Your task to perform on an android device: Show the shopping cart on walmart.com. Add amazon basics triple a to the cart on walmart.com Image 0: 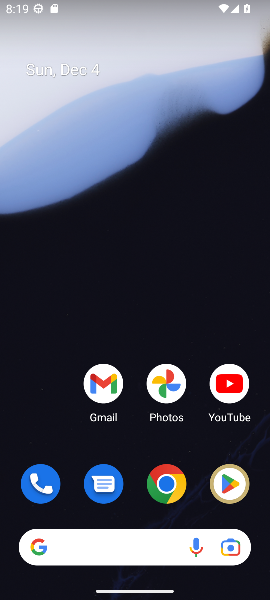
Step 0: click (170, 486)
Your task to perform on an android device: Show the shopping cart on walmart.com. Add amazon basics triple a to the cart on walmart.com Image 1: 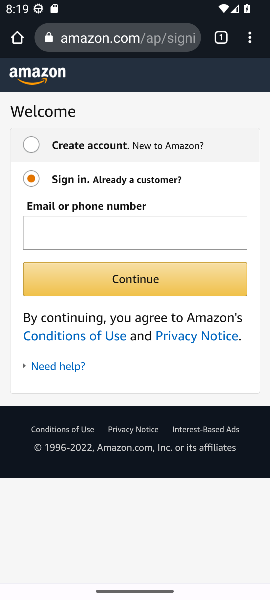
Step 1: click (118, 46)
Your task to perform on an android device: Show the shopping cart on walmart.com. Add amazon basics triple a to the cart on walmart.com Image 2: 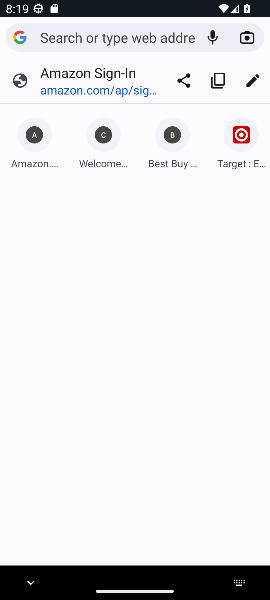
Step 2: type "walmart.com"
Your task to perform on an android device: Show the shopping cart on walmart.com. Add amazon basics triple a to the cart on walmart.com Image 3: 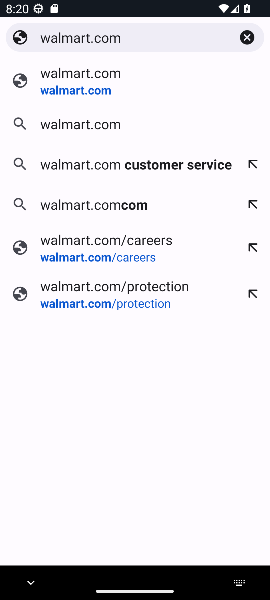
Step 3: click (71, 91)
Your task to perform on an android device: Show the shopping cart on walmart.com. Add amazon basics triple a to the cart on walmart.com Image 4: 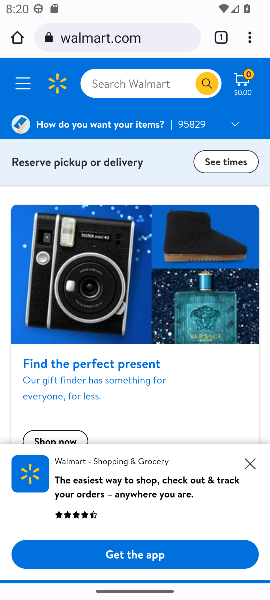
Step 4: click (245, 83)
Your task to perform on an android device: Show the shopping cart on walmart.com. Add amazon basics triple a to the cart on walmart.com Image 5: 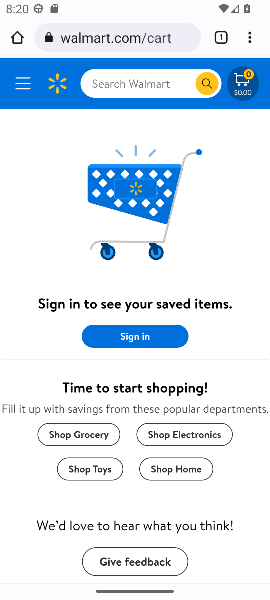
Step 5: click (104, 81)
Your task to perform on an android device: Show the shopping cart on walmart.com. Add amazon basics triple a to the cart on walmart.com Image 6: 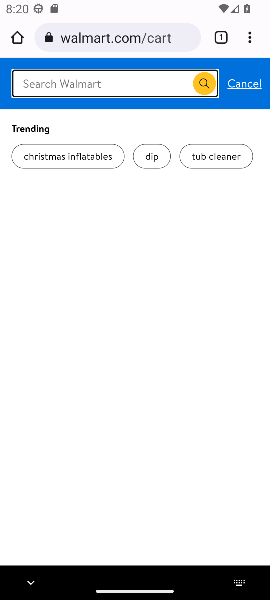
Step 6: type "amazon basics triple a"
Your task to perform on an android device: Show the shopping cart on walmart.com. Add amazon basics triple a to the cart on walmart.com Image 7: 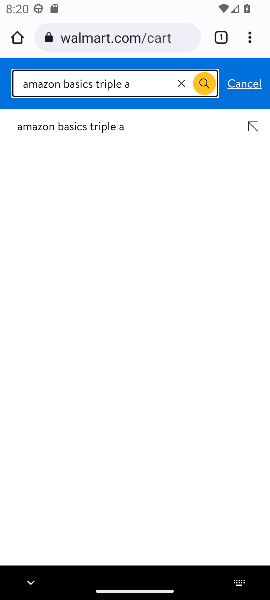
Step 7: click (105, 127)
Your task to perform on an android device: Show the shopping cart on walmart.com. Add amazon basics triple a to the cart on walmart.com Image 8: 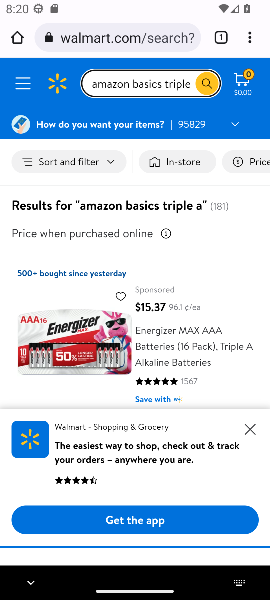
Step 8: click (254, 430)
Your task to perform on an android device: Show the shopping cart on walmart.com. Add amazon basics triple a to the cart on walmart.com Image 9: 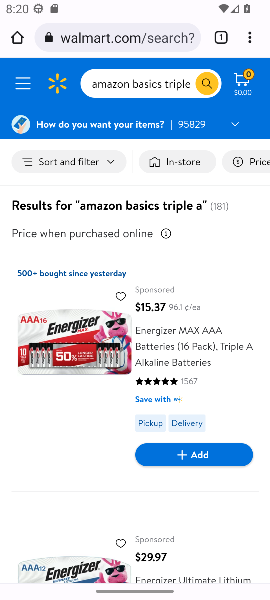
Step 9: task complete